Your task to perform on an android device: Open Android settings Image 0: 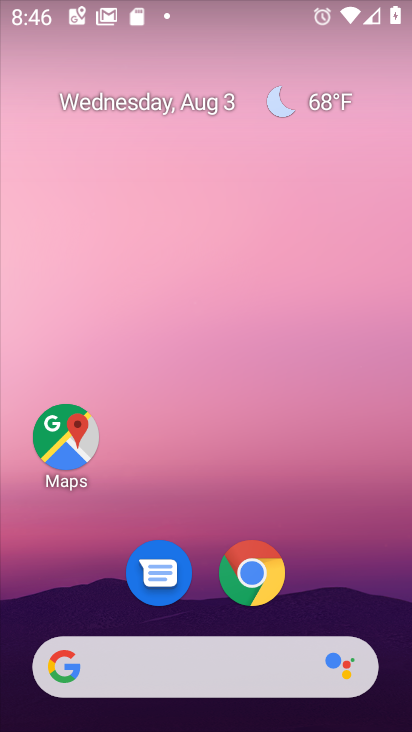
Step 0: drag from (341, 622) to (298, 0)
Your task to perform on an android device: Open Android settings Image 1: 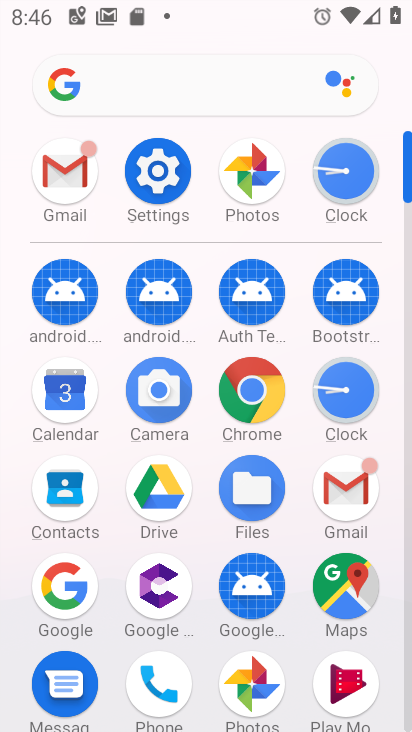
Step 1: click (150, 184)
Your task to perform on an android device: Open Android settings Image 2: 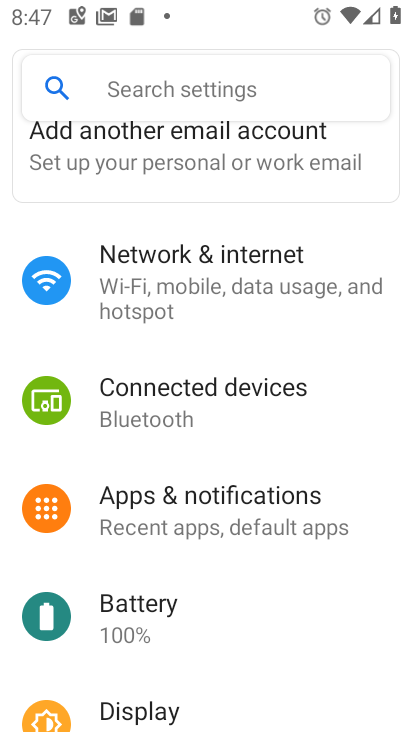
Step 2: task complete